Your task to perform on an android device: What's the weather today? Image 0: 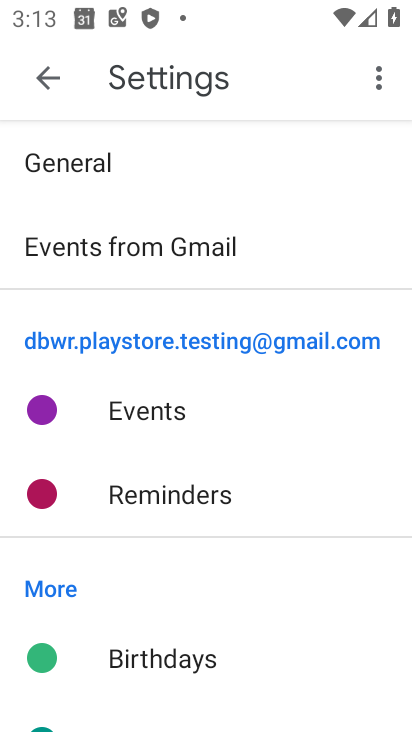
Step 0: press home button
Your task to perform on an android device: What's the weather today? Image 1: 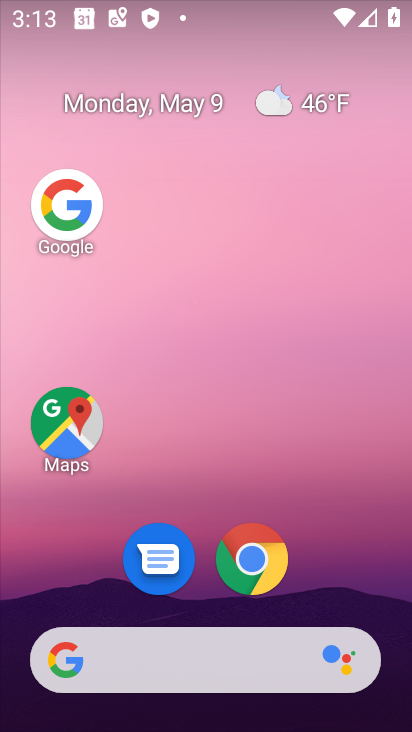
Step 1: click (75, 205)
Your task to perform on an android device: What's the weather today? Image 2: 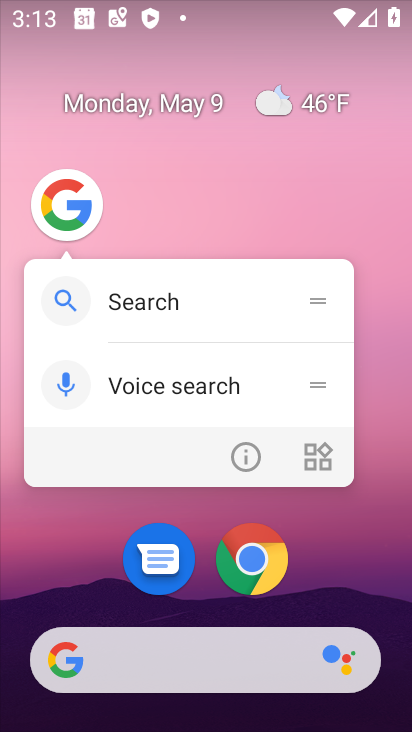
Step 2: click (75, 205)
Your task to perform on an android device: What's the weather today? Image 3: 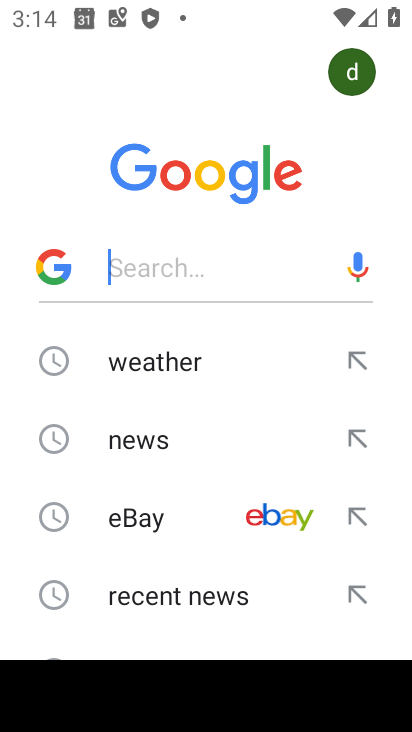
Step 3: click (125, 362)
Your task to perform on an android device: What's the weather today? Image 4: 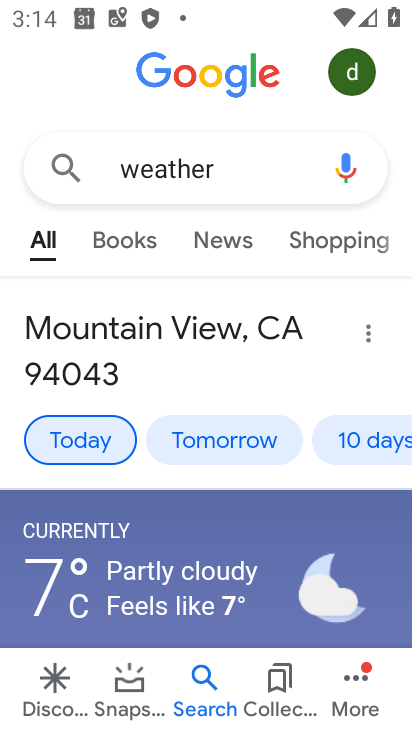
Step 4: task complete